Your task to perform on an android device: turn off airplane mode Image 0: 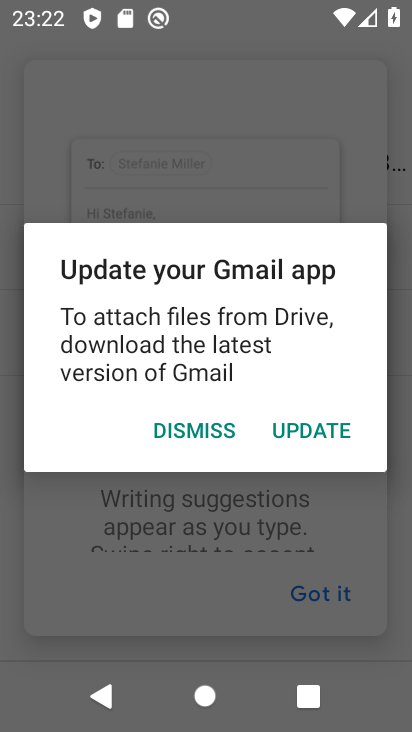
Step 0: click (181, 434)
Your task to perform on an android device: turn off airplane mode Image 1: 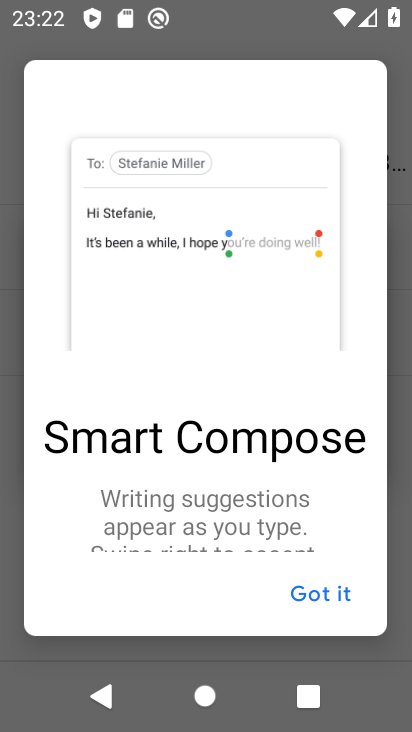
Step 1: click (325, 594)
Your task to perform on an android device: turn off airplane mode Image 2: 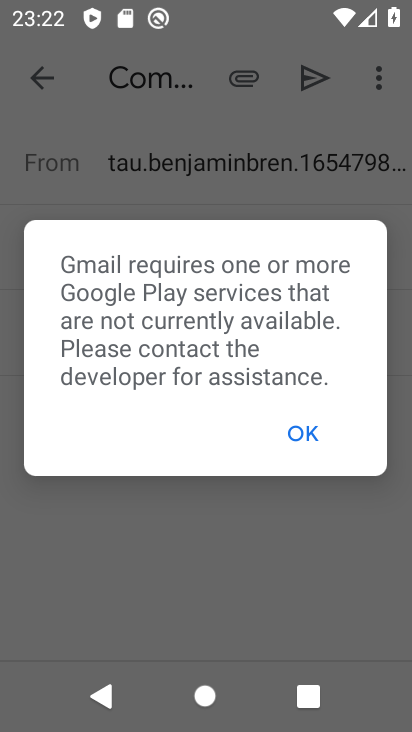
Step 2: click (309, 440)
Your task to perform on an android device: turn off airplane mode Image 3: 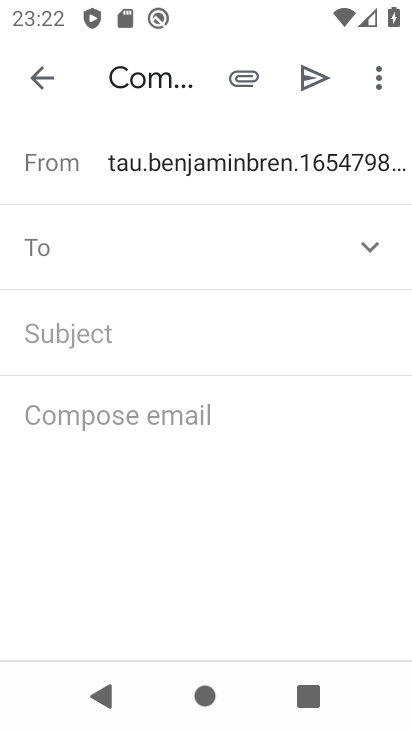
Step 3: task complete